Your task to perform on an android device: What's a good restaurant in San Francisco? Image 0: 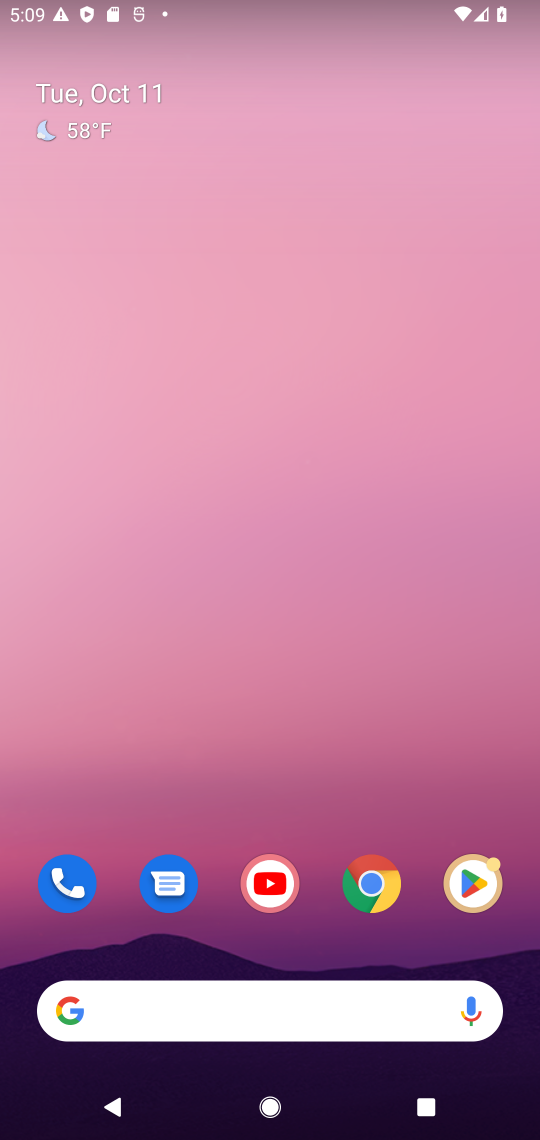
Step 0: drag from (302, 853) to (399, 49)
Your task to perform on an android device: What's a good restaurant in San Francisco? Image 1: 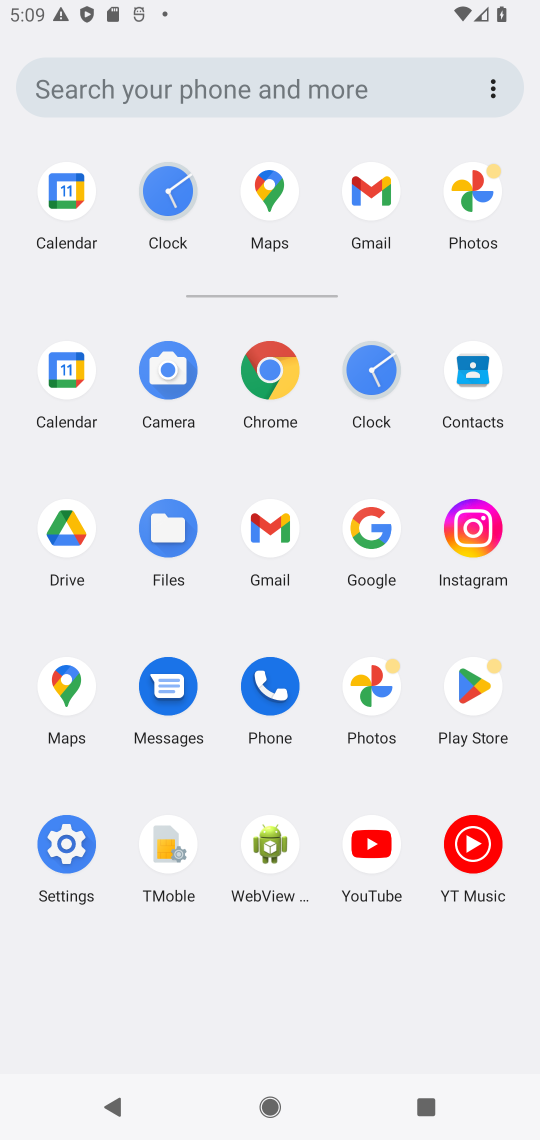
Step 1: click (272, 370)
Your task to perform on an android device: What's a good restaurant in San Francisco? Image 2: 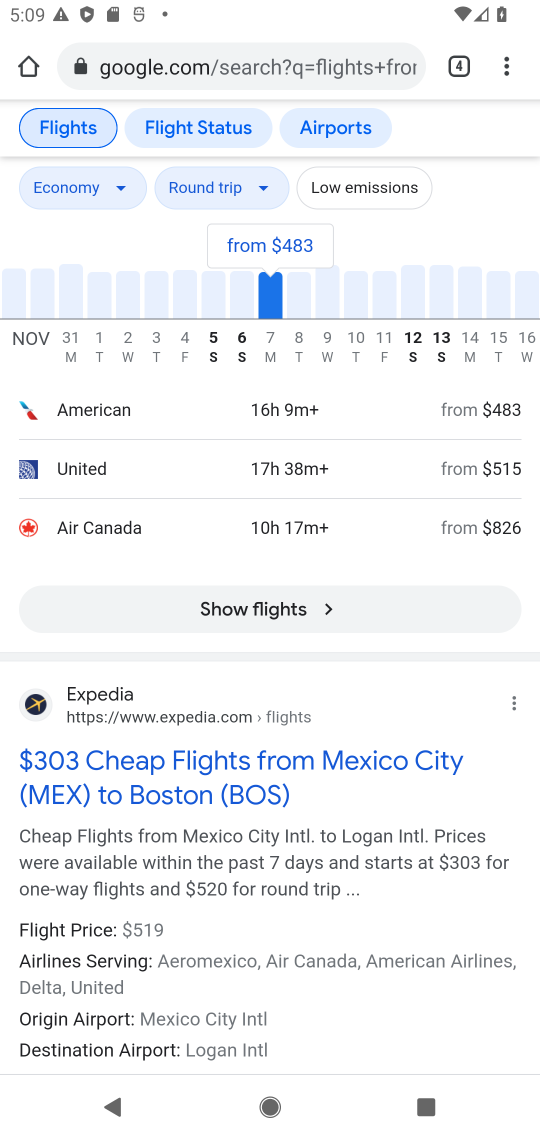
Step 2: click (259, 78)
Your task to perform on an android device: What's a good restaurant in San Francisco? Image 3: 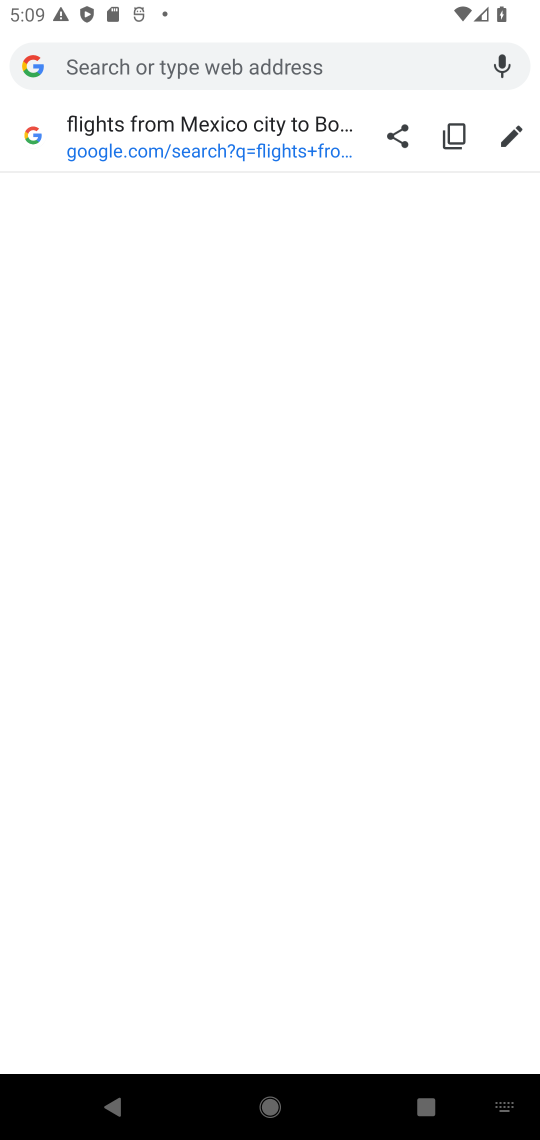
Step 3: type "good restaurant in San Francisco?"
Your task to perform on an android device: What's a good restaurant in San Francisco? Image 4: 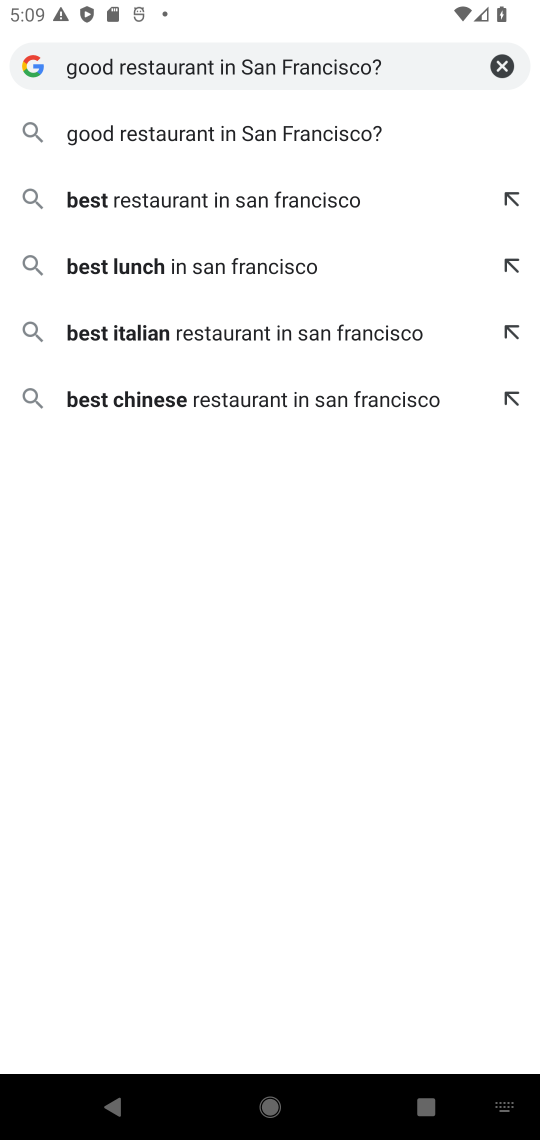
Step 4: press enter
Your task to perform on an android device: What's a good restaurant in San Francisco? Image 5: 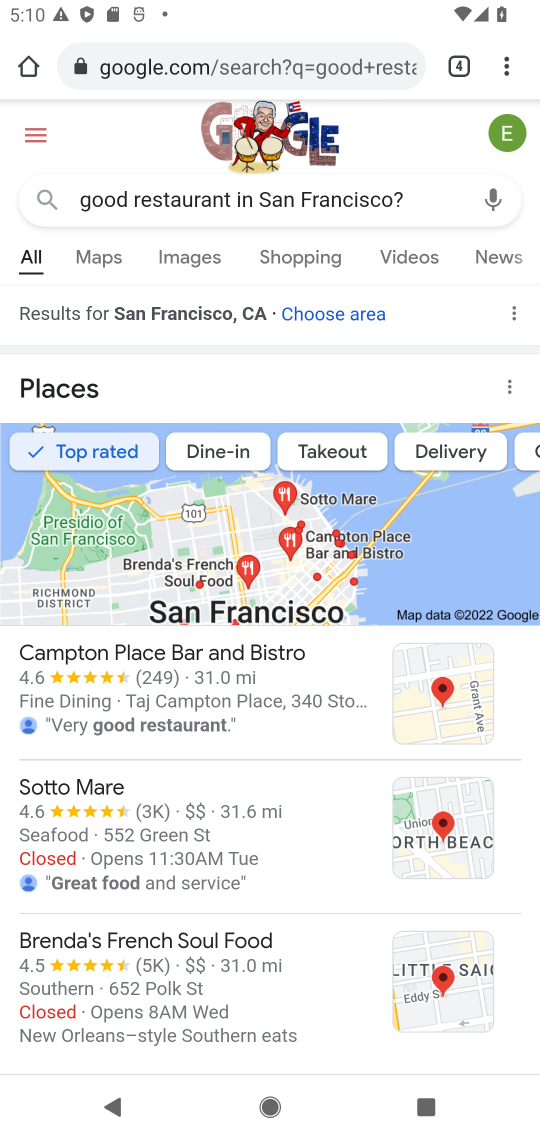
Step 5: task complete